Your task to perform on an android device: search for starred emails in the gmail app Image 0: 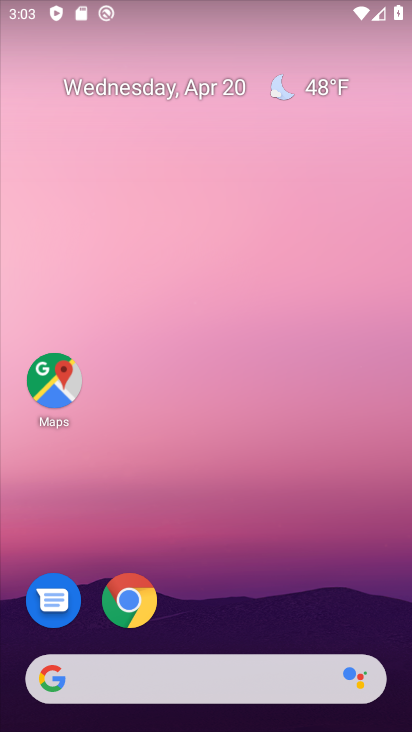
Step 0: drag from (319, 584) to (332, 157)
Your task to perform on an android device: search for starred emails in the gmail app Image 1: 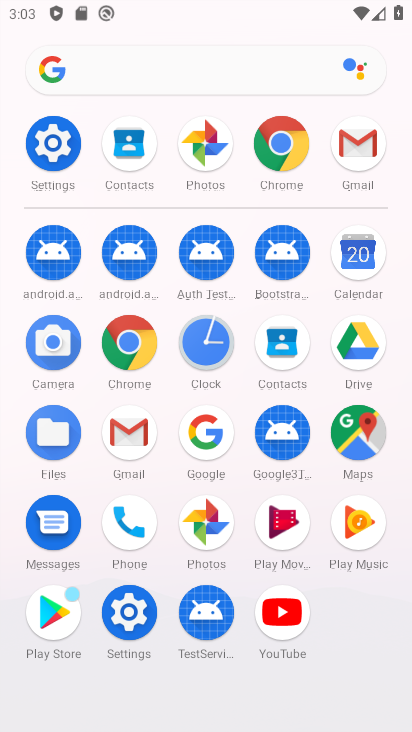
Step 1: click (352, 167)
Your task to perform on an android device: search for starred emails in the gmail app Image 2: 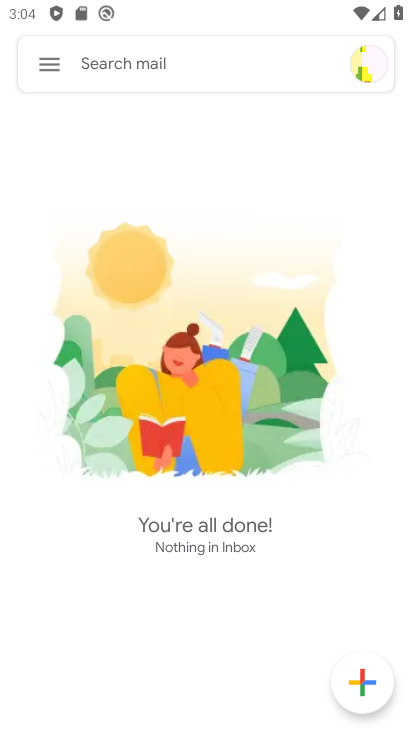
Step 2: task complete